Your task to perform on an android device: change keyboard looks Image 0: 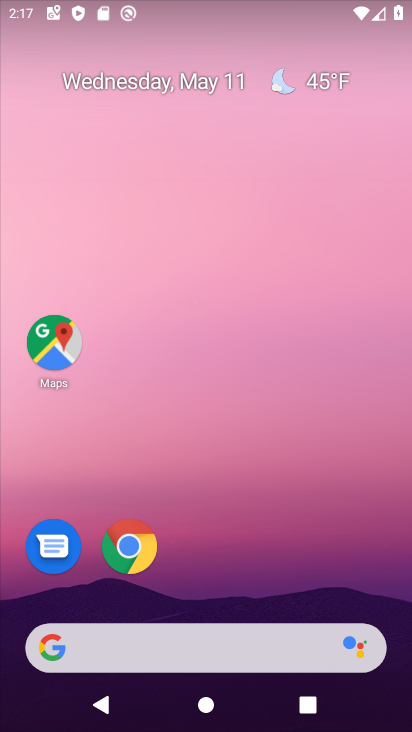
Step 0: drag from (219, 584) to (297, 30)
Your task to perform on an android device: change keyboard looks Image 1: 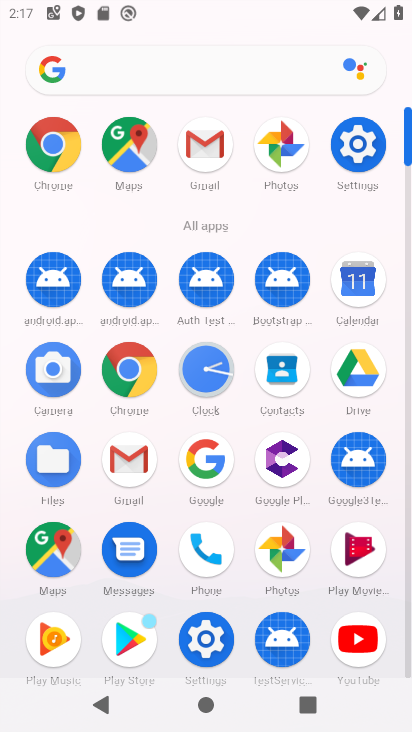
Step 1: click (199, 656)
Your task to perform on an android device: change keyboard looks Image 2: 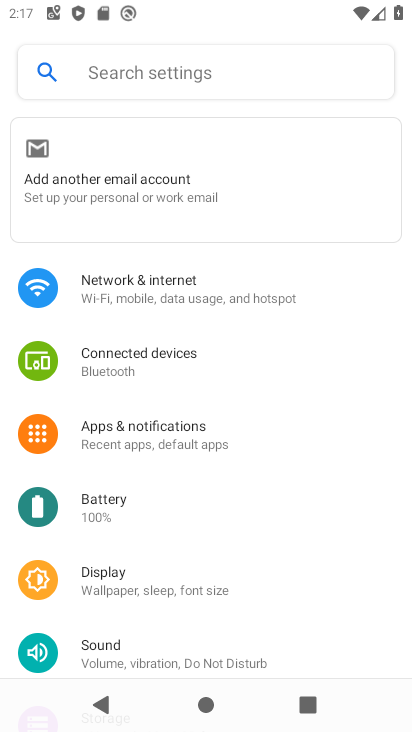
Step 2: drag from (167, 607) to (248, 13)
Your task to perform on an android device: change keyboard looks Image 3: 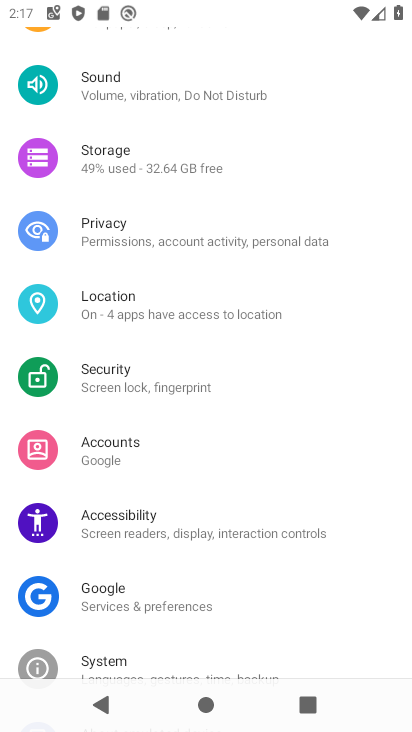
Step 3: drag from (132, 568) to (165, 334)
Your task to perform on an android device: change keyboard looks Image 4: 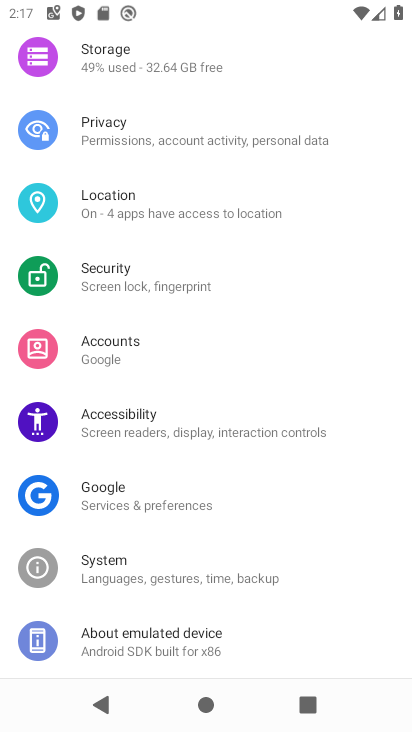
Step 4: click (105, 575)
Your task to perform on an android device: change keyboard looks Image 5: 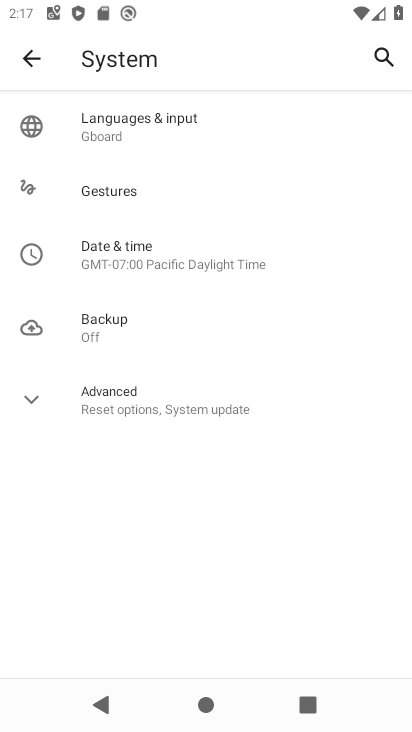
Step 5: click (143, 110)
Your task to perform on an android device: change keyboard looks Image 6: 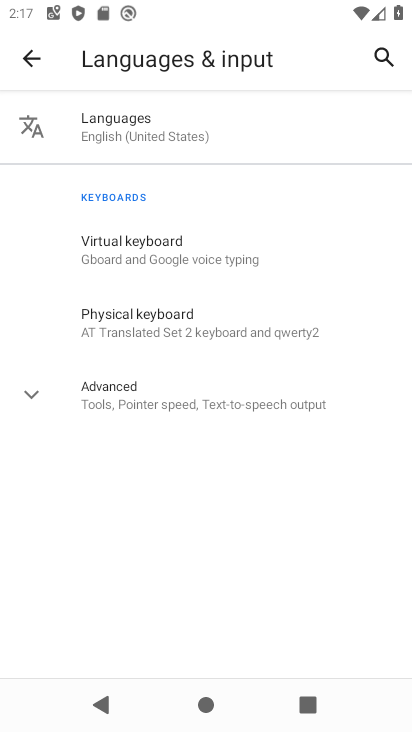
Step 6: click (139, 249)
Your task to perform on an android device: change keyboard looks Image 7: 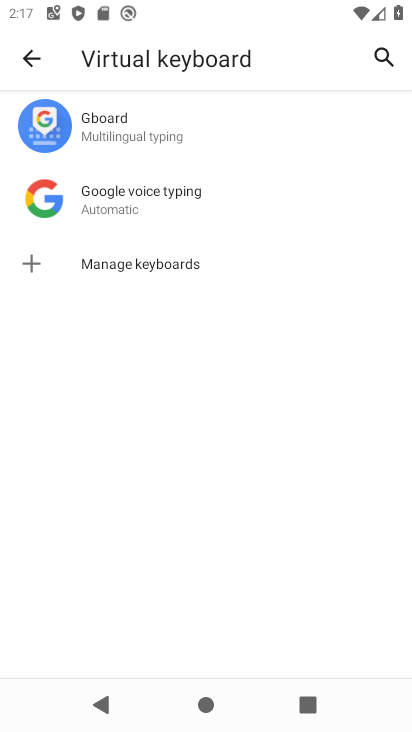
Step 7: click (112, 135)
Your task to perform on an android device: change keyboard looks Image 8: 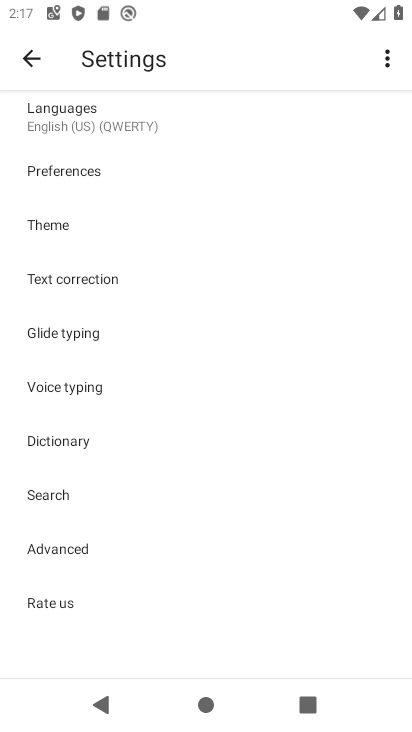
Step 8: click (72, 221)
Your task to perform on an android device: change keyboard looks Image 9: 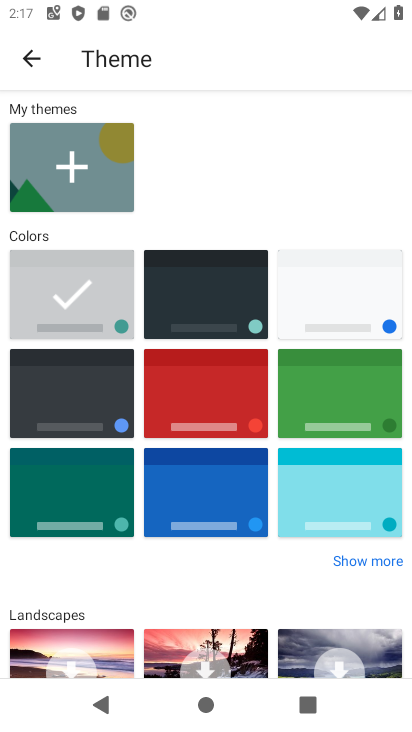
Step 9: click (204, 373)
Your task to perform on an android device: change keyboard looks Image 10: 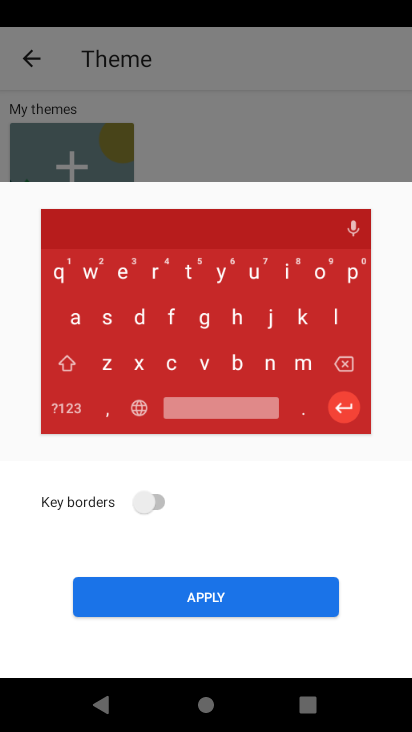
Step 10: click (237, 605)
Your task to perform on an android device: change keyboard looks Image 11: 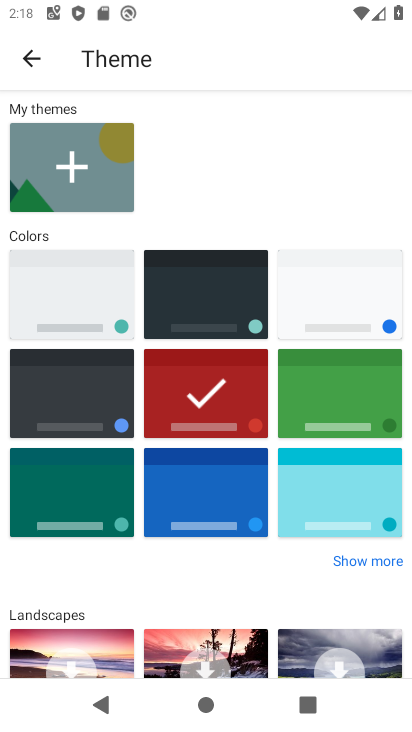
Step 11: task complete